Your task to perform on an android device: clear history in the chrome app Image 0: 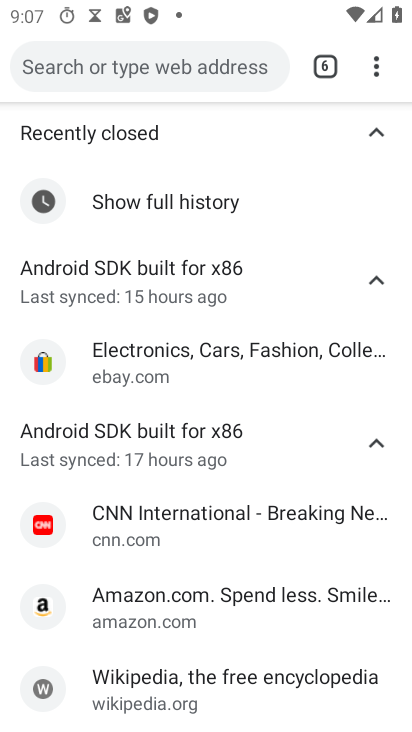
Step 0: press home button
Your task to perform on an android device: clear history in the chrome app Image 1: 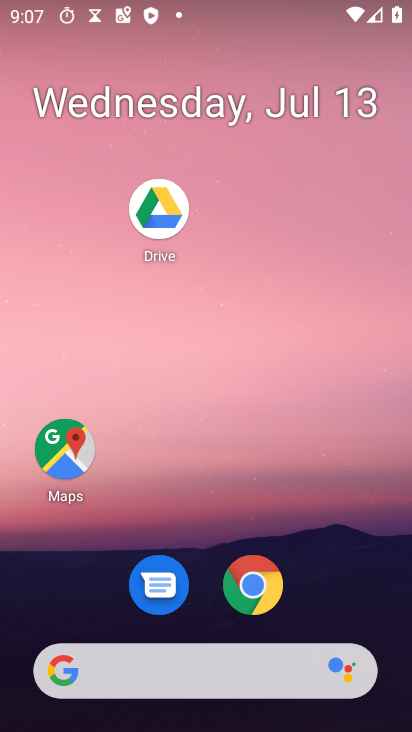
Step 1: click (248, 593)
Your task to perform on an android device: clear history in the chrome app Image 2: 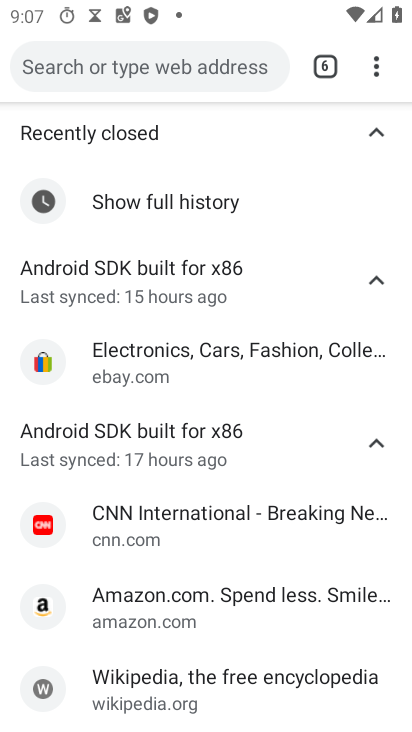
Step 2: drag from (371, 69) to (178, 370)
Your task to perform on an android device: clear history in the chrome app Image 3: 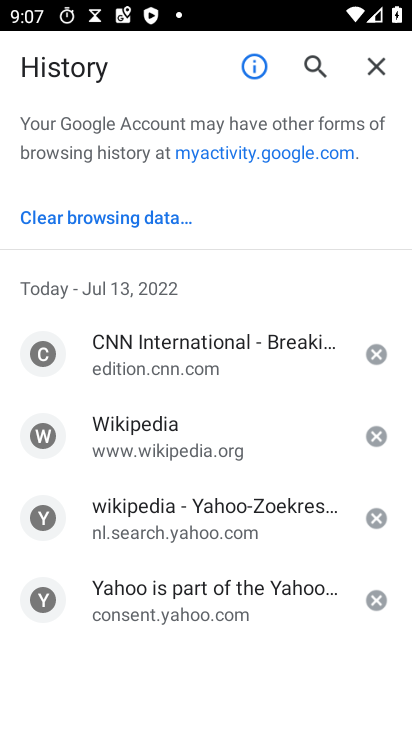
Step 3: click (97, 221)
Your task to perform on an android device: clear history in the chrome app Image 4: 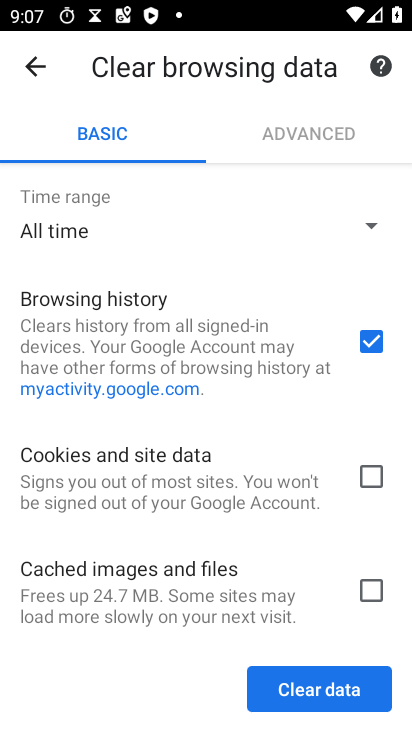
Step 4: click (377, 468)
Your task to perform on an android device: clear history in the chrome app Image 5: 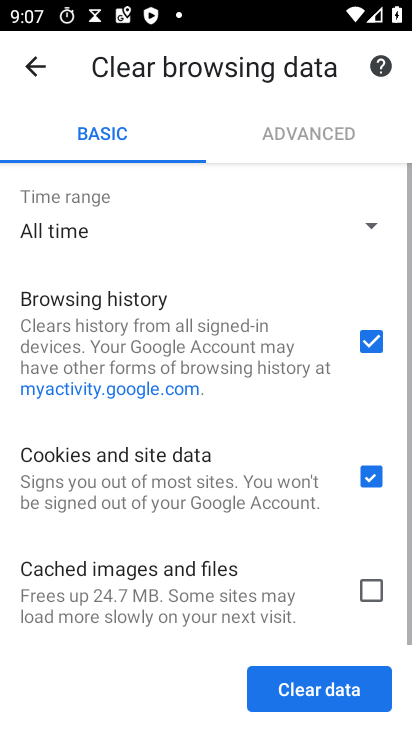
Step 5: click (379, 587)
Your task to perform on an android device: clear history in the chrome app Image 6: 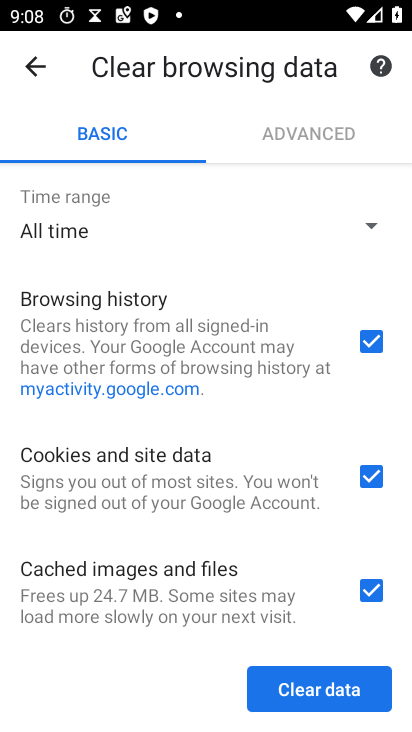
Step 6: click (298, 706)
Your task to perform on an android device: clear history in the chrome app Image 7: 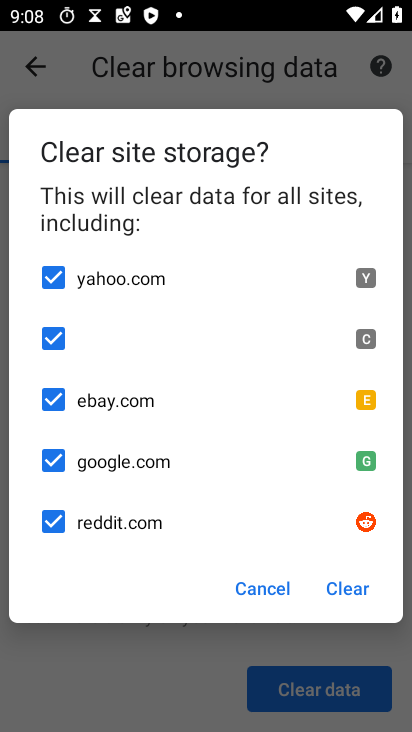
Step 7: click (354, 589)
Your task to perform on an android device: clear history in the chrome app Image 8: 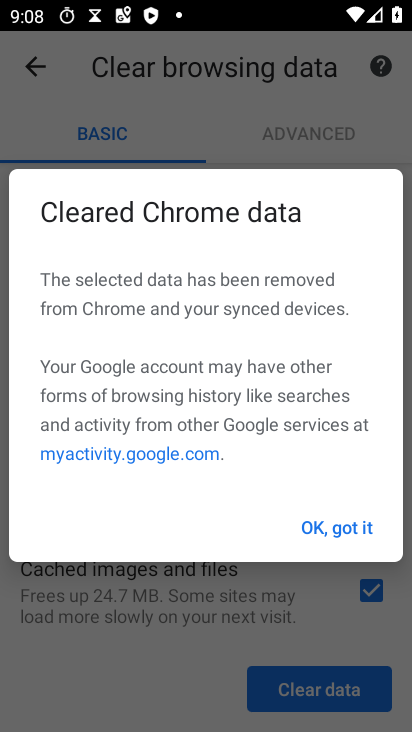
Step 8: click (305, 530)
Your task to perform on an android device: clear history in the chrome app Image 9: 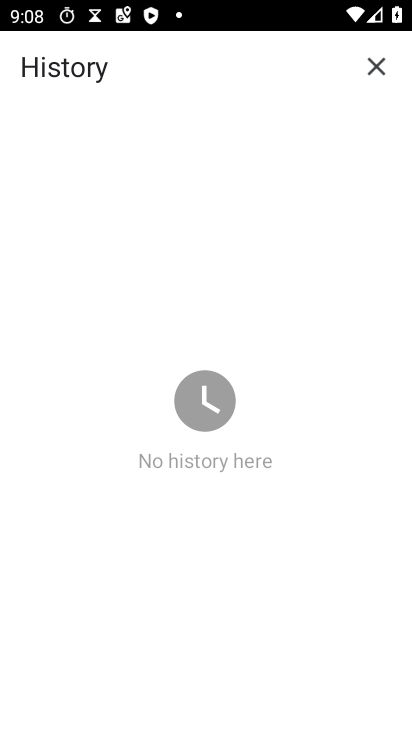
Step 9: task complete